Your task to perform on an android device: delete the emails in spam in the gmail app Image 0: 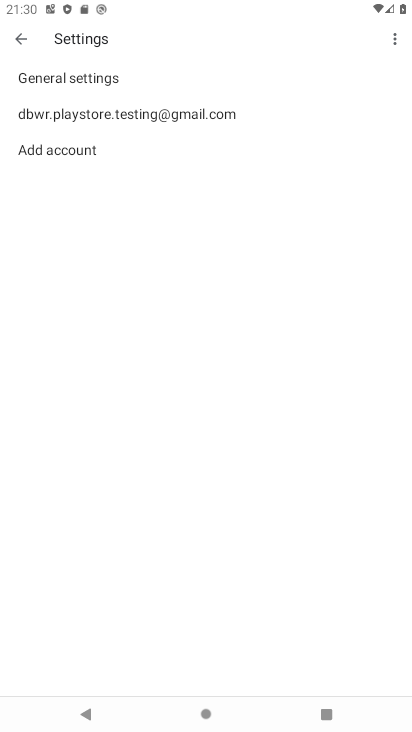
Step 0: press home button
Your task to perform on an android device: delete the emails in spam in the gmail app Image 1: 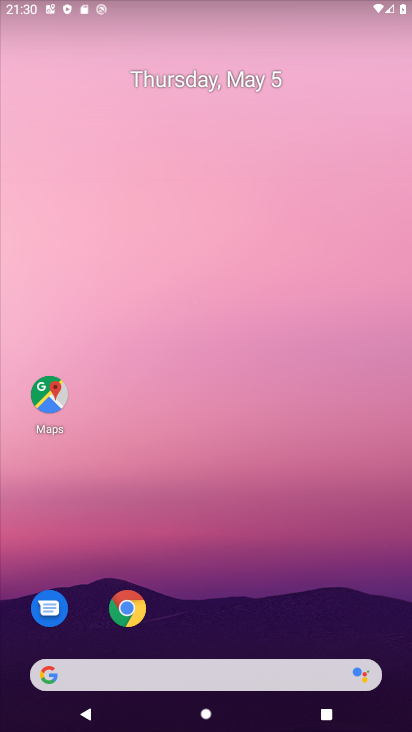
Step 1: drag from (346, 669) to (274, 1)
Your task to perform on an android device: delete the emails in spam in the gmail app Image 2: 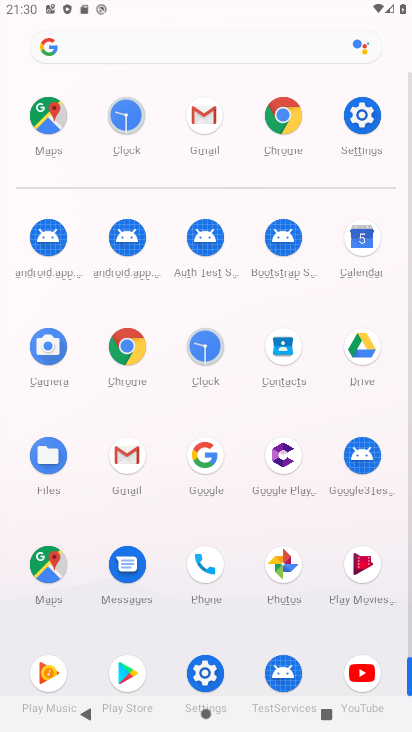
Step 2: click (124, 460)
Your task to perform on an android device: delete the emails in spam in the gmail app Image 3: 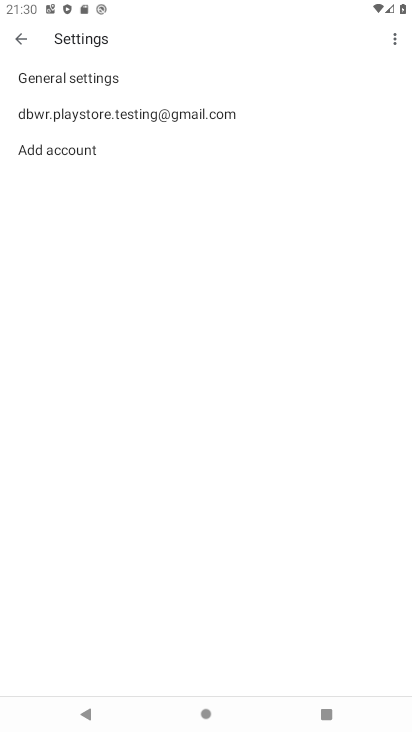
Step 3: press back button
Your task to perform on an android device: delete the emails in spam in the gmail app Image 4: 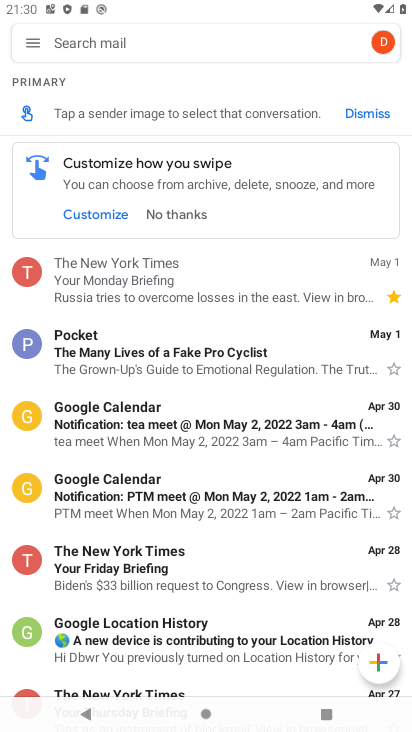
Step 4: click (37, 47)
Your task to perform on an android device: delete the emails in spam in the gmail app Image 5: 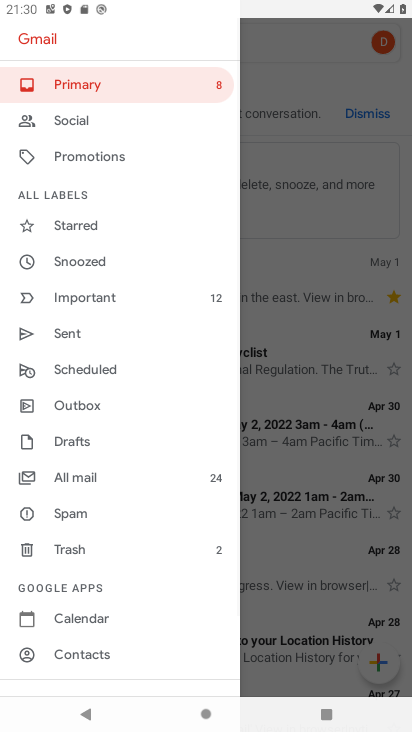
Step 5: click (114, 510)
Your task to perform on an android device: delete the emails in spam in the gmail app Image 6: 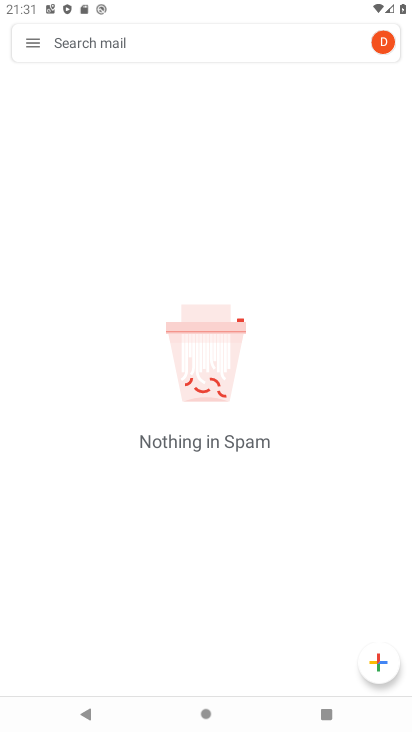
Step 6: task complete